Your task to perform on an android device: turn on location history Image 0: 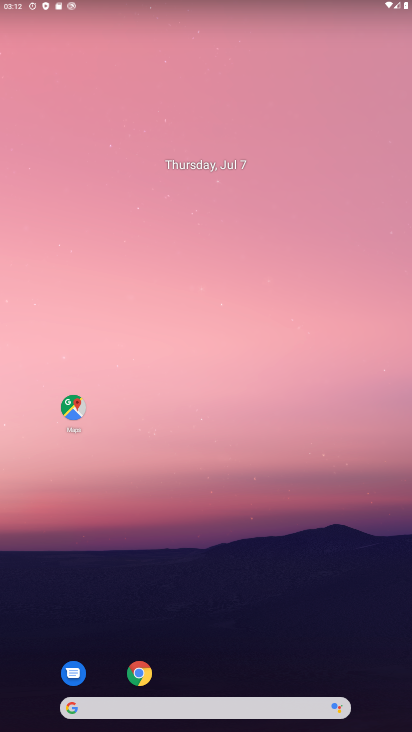
Step 0: drag from (235, 663) to (235, 199)
Your task to perform on an android device: turn on location history Image 1: 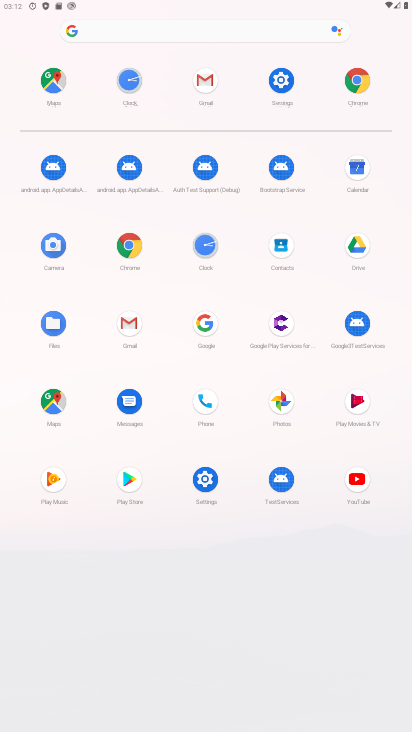
Step 1: click (269, 88)
Your task to perform on an android device: turn on location history Image 2: 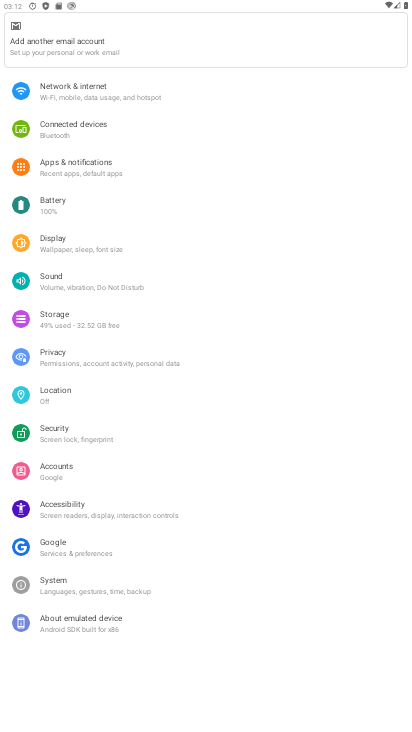
Step 2: click (88, 389)
Your task to perform on an android device: turn on location history Image 3: 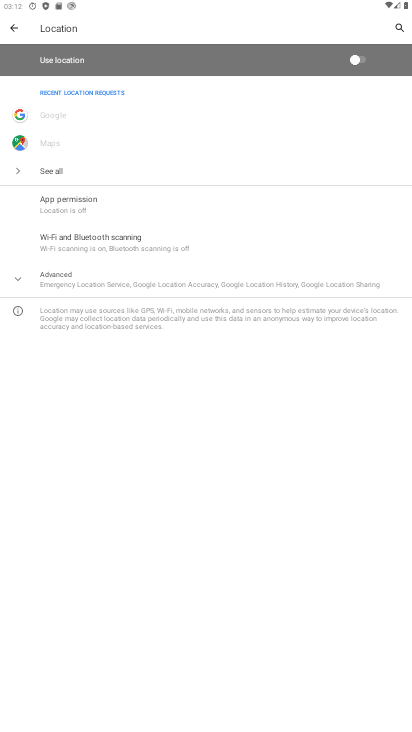
Step 3: click (119, 284)
Your task to perform on an android device: turn on location history Image 4: 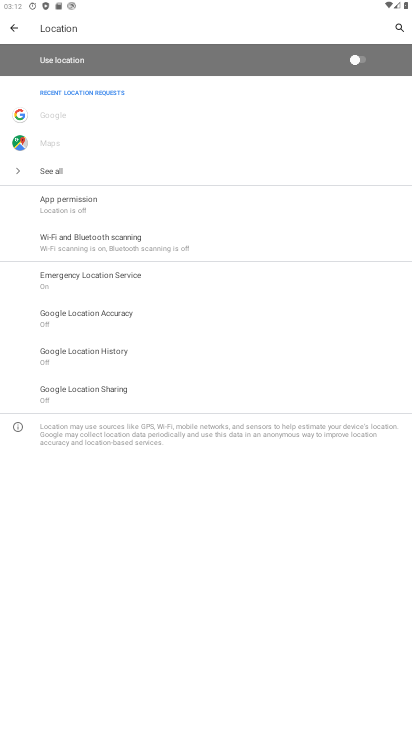
Step 4: click (133, 356)
Your task to perform on an android device: turn on location history Image 5: 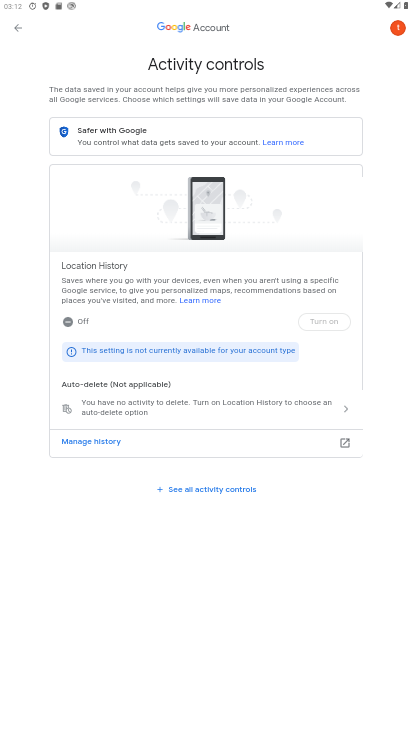
Step 5: click (315, 311)
Your task to perform on an android device: turn on location history Image 6: 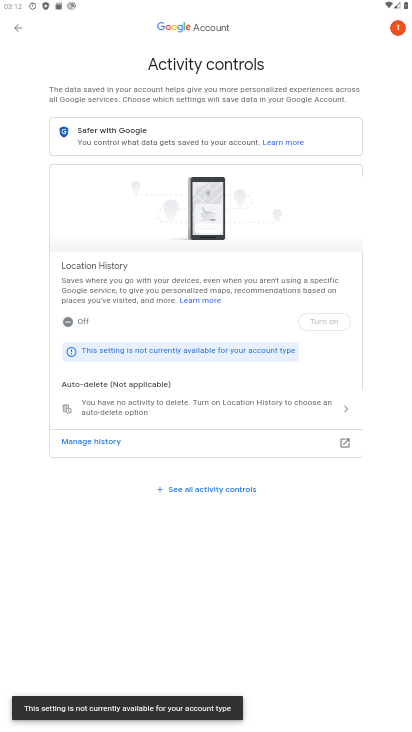
Step 6: click (330, 322)
Your task to perform on an android device: turn on location history Image 7: 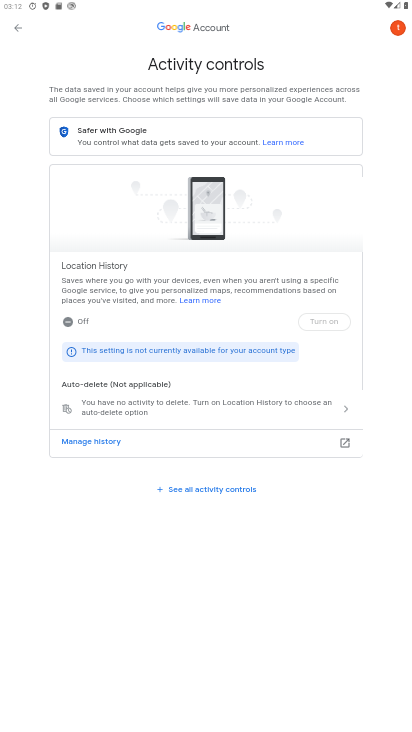
Step 7: task complete